Your task to perform on an android device: open wifi settings Image 0: 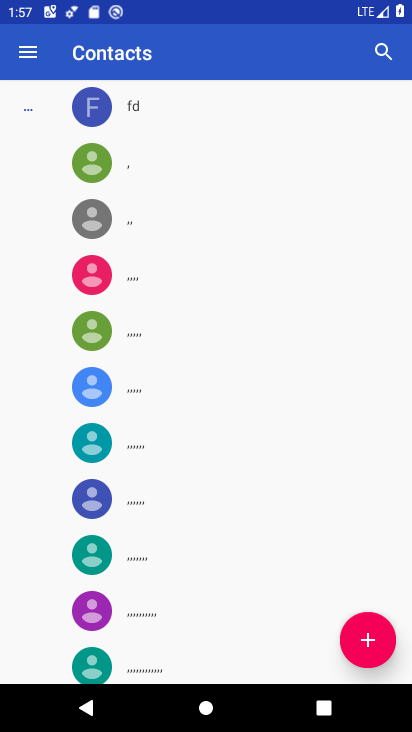
Step 0: press home button
Your task to perform on an android device: open wifi settings Image 1: 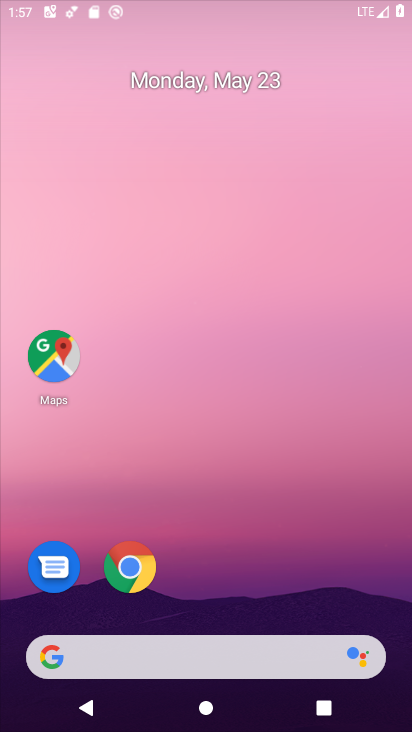
Step 1: drag from (300, 538) to (355, 115)
Your task to perform on an android device: open wifi settings Image 2: 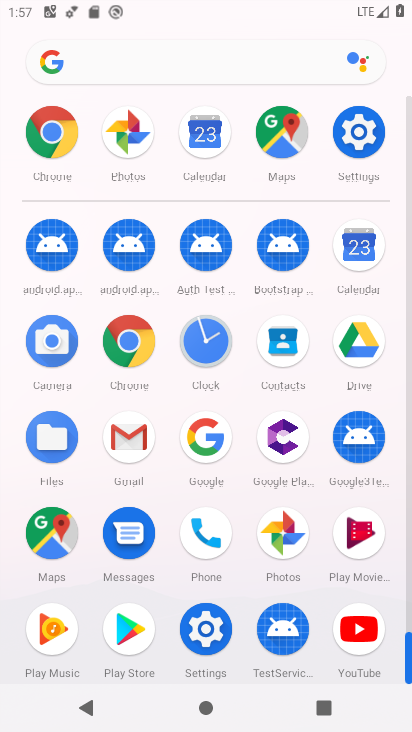
Step 2: click (347, 134)
Your task to perform on an android device: open wifi settings Image 3: 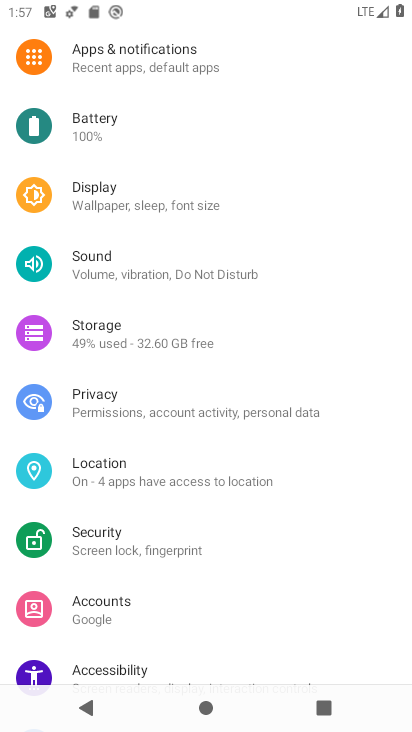
Step 3: drag from (164, 132) to (135, 562)
Your task to perform on an android device: open wifi settings Image 4: 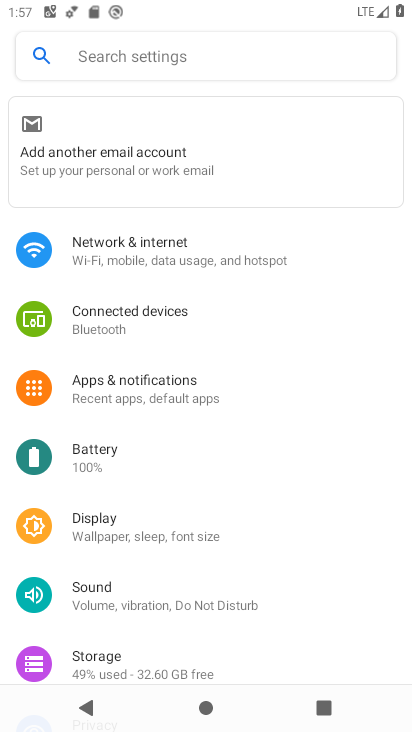
Step 4: click (142, 262)
Your task to perform on an android device: open wifi settings Image 5: 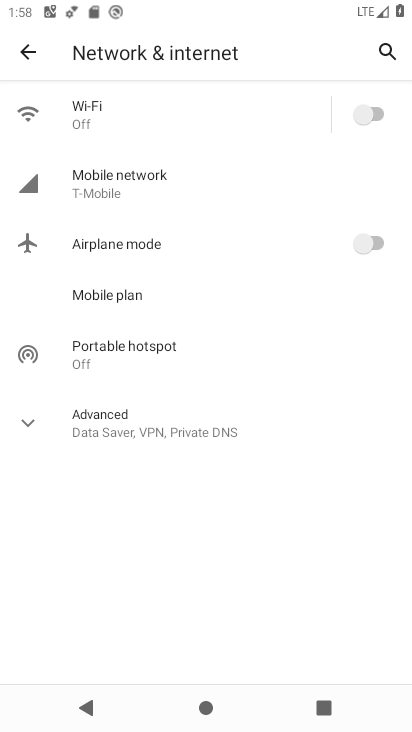
Step 5: click (184, 115)
Your task to perform on an android device: open wifi settings Image 6: 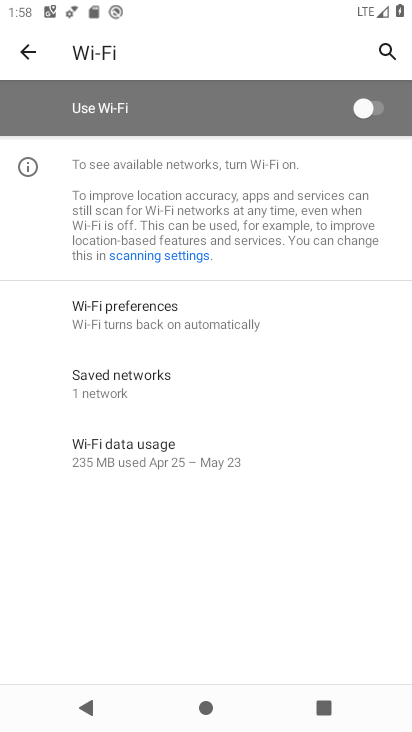
Step 6: task complete